Your task to perform on an android device: What's the weather? Image 0: 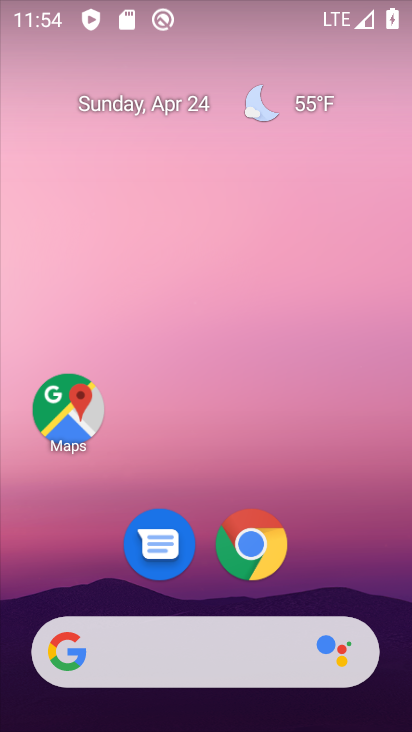
Step 0: click (268, 549)
Your task to perform on an android device: What's the weather? Image 1: 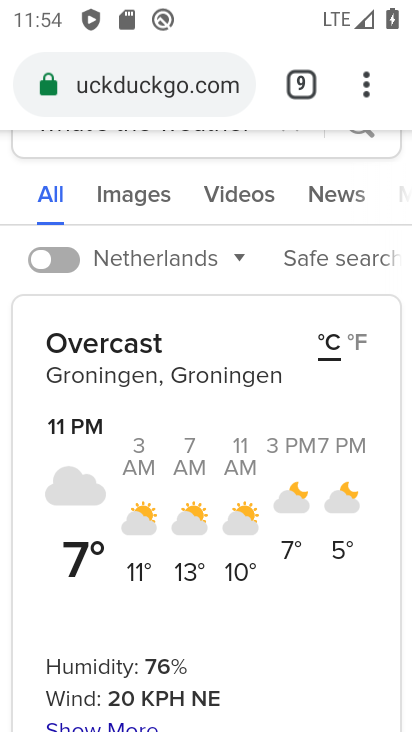
Step 1: task complete